Your task to perform on an android device: change keyboard looks Image 0: 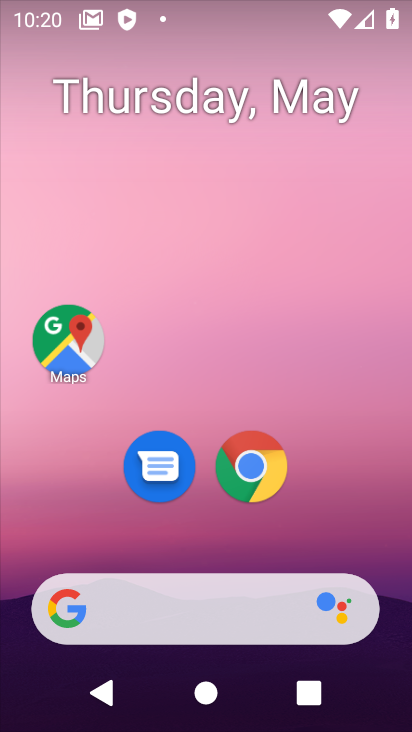
Step 0: drag from (210, 581) to (279, 166)
Your task to perform on an android device: change keyboard looks Image 1: 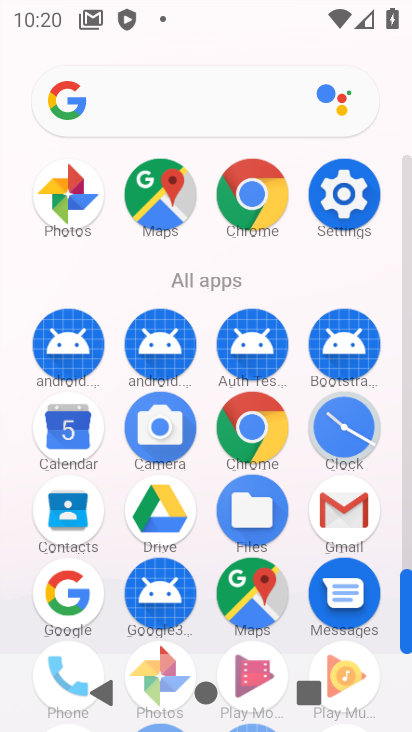
Step 1: click (344, 198)
Your task to perform on an android device: change keyboard looks Image 2: 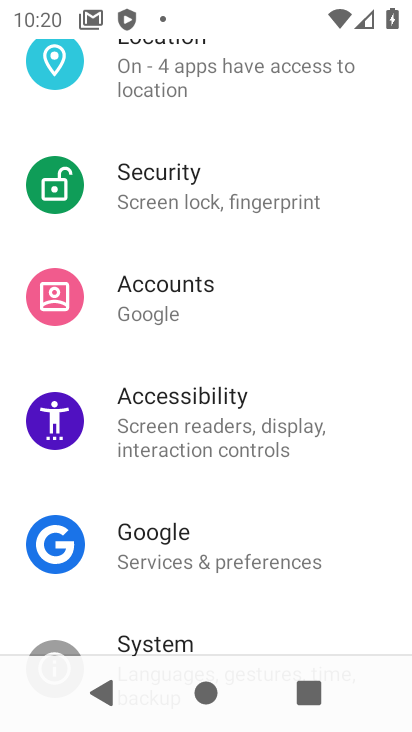
Step 2: drag from (182, 620) to (233, 336)
Your task to perform on an android device: change keyboard looks Image 3: 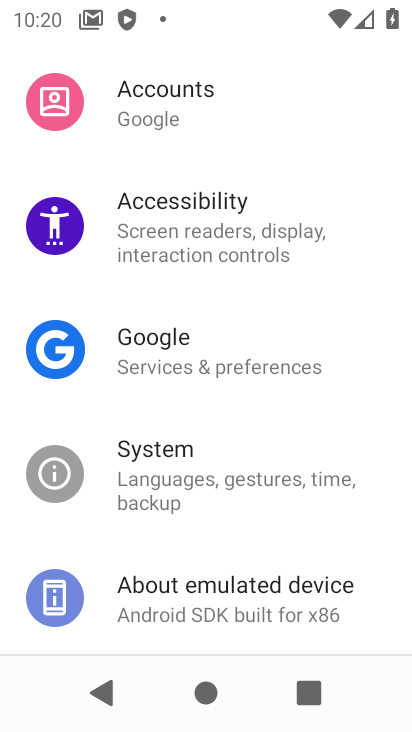
Step 3: click (193, 482)
Your task to perform on an android device: change keyboard looks Image 4: 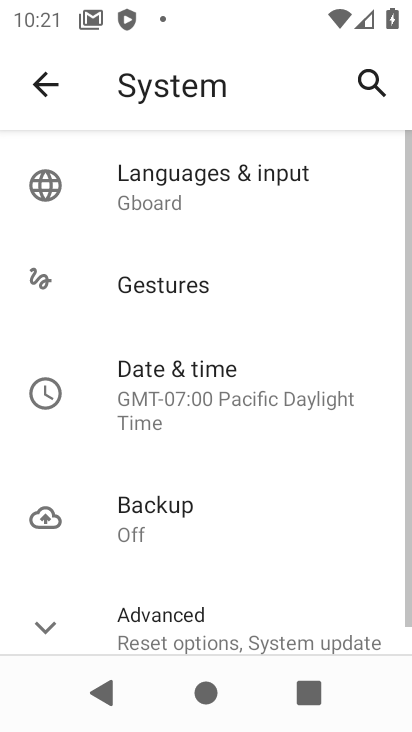
Step 4: click (172, 177)
Your task to perform on an android device: change keyboard looks Image 5: 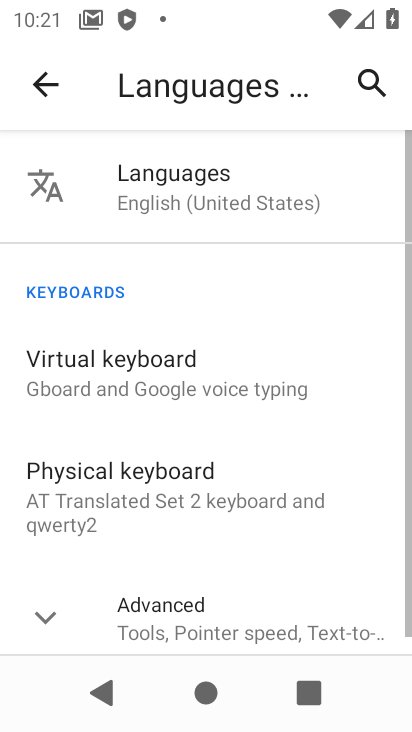
Step 5: click (133, 372)
Your task to perform on an android device: change keyboard looks Image 6: 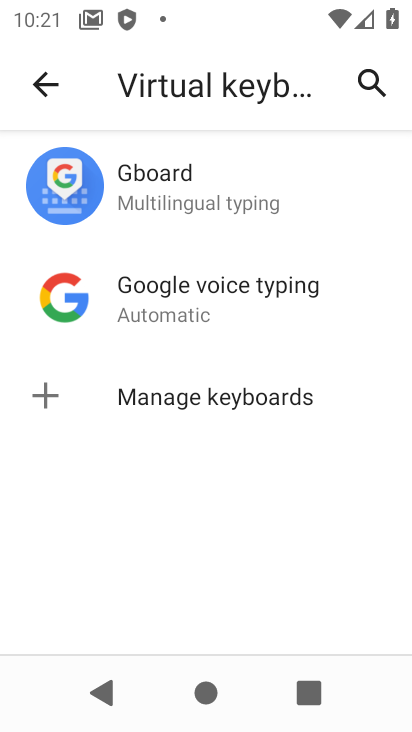
Step 6: click (172, 209)
Your task to perform on an android device: change keyboard looks Image 7: 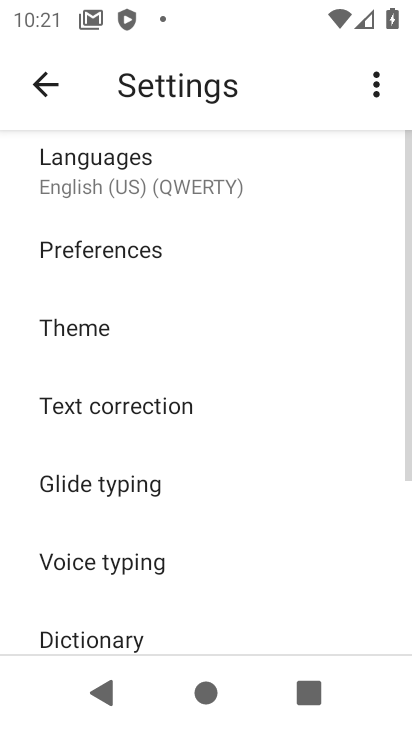
Step 7: click (71, 333)
Your task to perform on an android device: change keyboard looks Image 8: 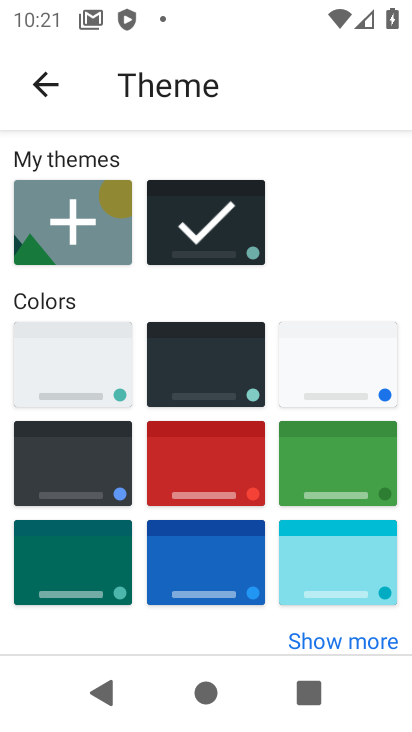
Step 8: click (218, 459)
Your task to perform on an android device: change keyboard looks Image 9: 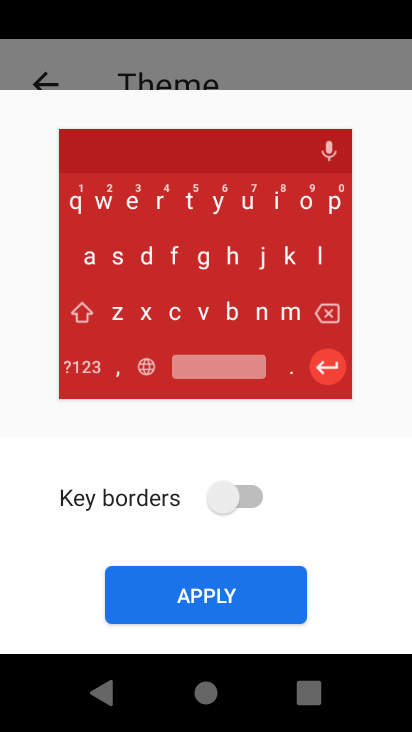
Step 9: click (216, 602)
Your task to perform on an android device: change keyboard looks Image 10: 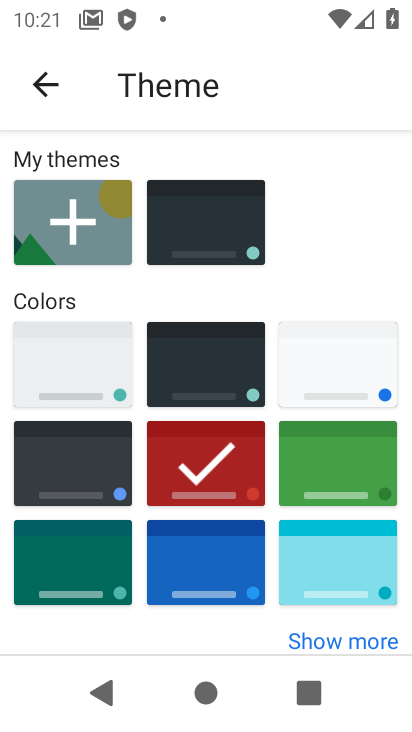
Step 10: task complete